Your task to perform on an android device: find which apps use the phone's location Image 0: 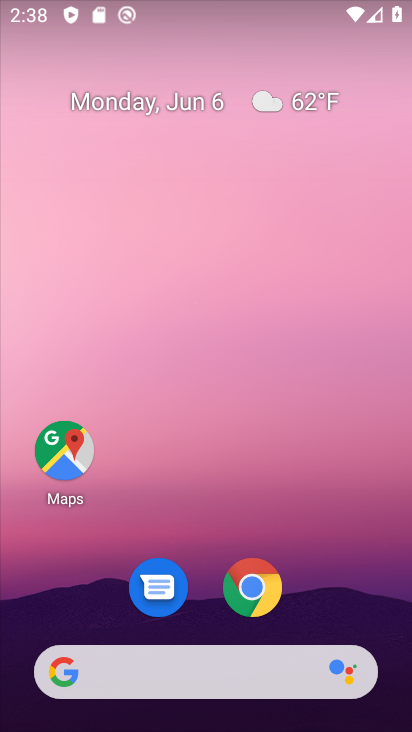
Step 0: drag from (212, 644) to (212, 266)
Your task to perform on an android device: find which apps use the phone's location Image 1: 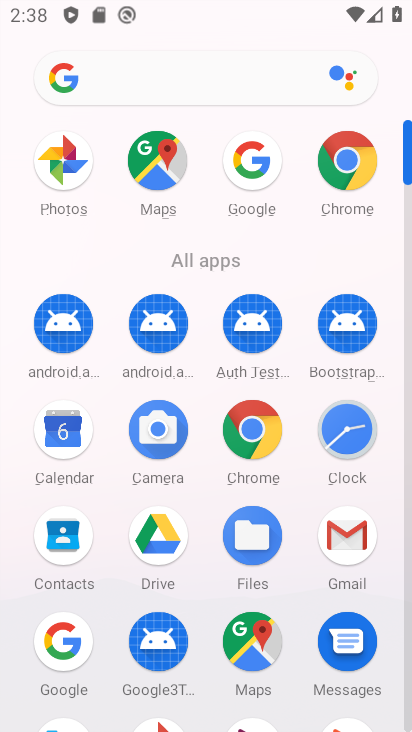
Step 1: drag from (114, 673) to (114, 342)
Your task to perform on an android device: find which apps use the phone's location Image 2: 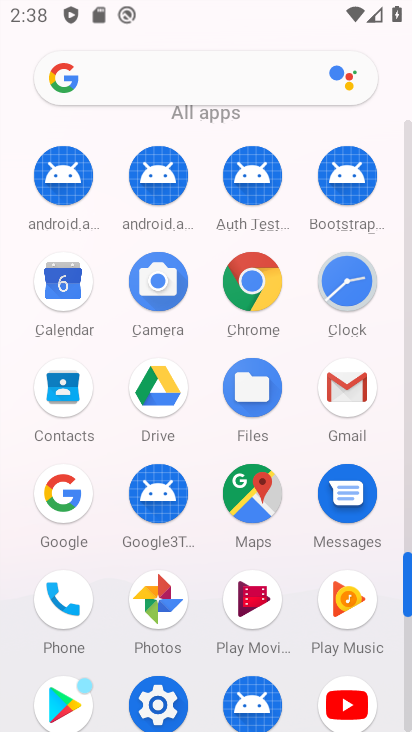
Step 2: click (151, 712)
Your task to perform on an android device: find which apps use the phone's location Image 3: 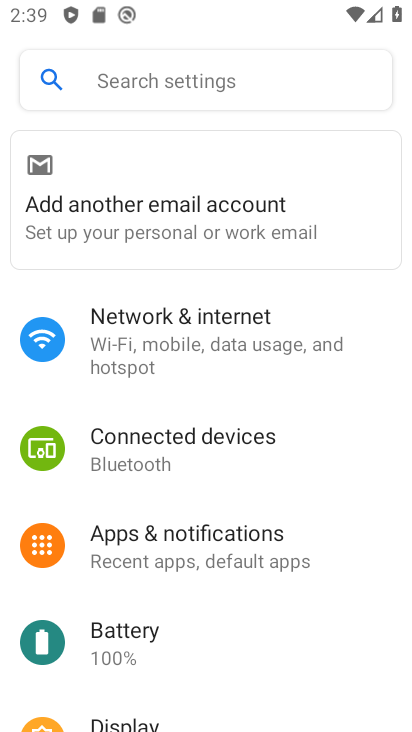
Step 3: drag from (203, 676) to (197, 308)
Your task to perform on an android device: find which apps use the phone's location Image 4: 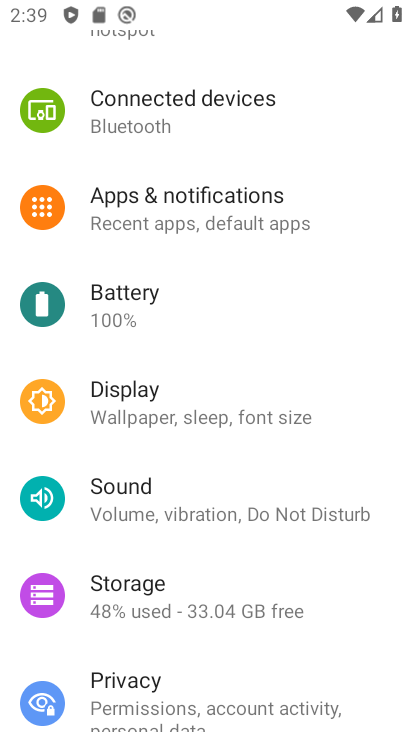
Step 4: drag from (211, 514) to (200, 417)
Your task to perform on an android device: find which apps use the phone's location Image 5: 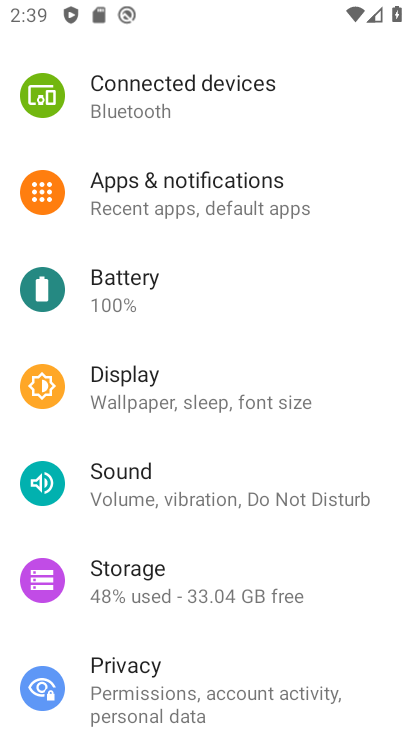
Step 5: drag from (221, 710) to (218, 377)
Your task to perform on an android device: find which apps use the phone's location Image 6: 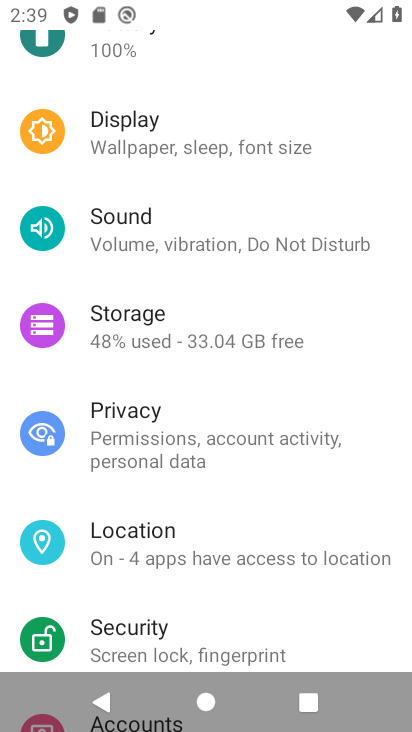
Step 6: click (159, 552)
Your task to perform on an android device: find which apps use the phone's location Image 7: 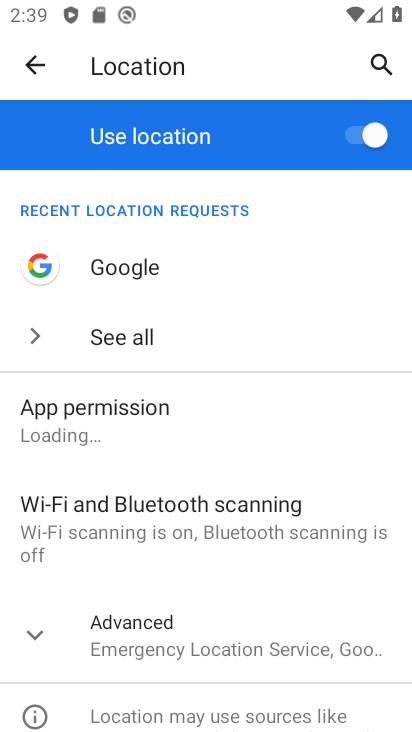
Step 7: click (162, 634)
Your task to perform on an android device: find which apps use the phone's location Image 8: 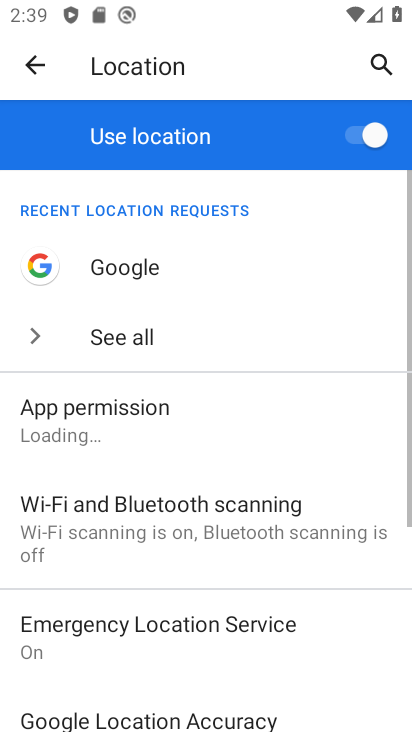
Step 8: click (219, 328)
Your task to perform on an android device: find which apps use the phone's location Image 9: 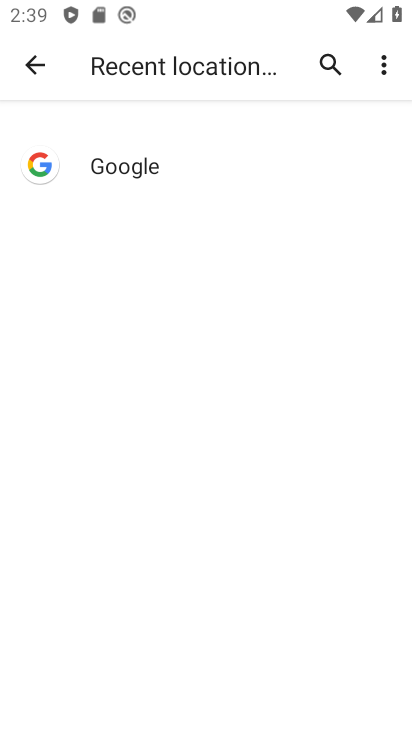
Step 9: task complete